Your task to perform on an android device: Go to CNN.com Image 0: 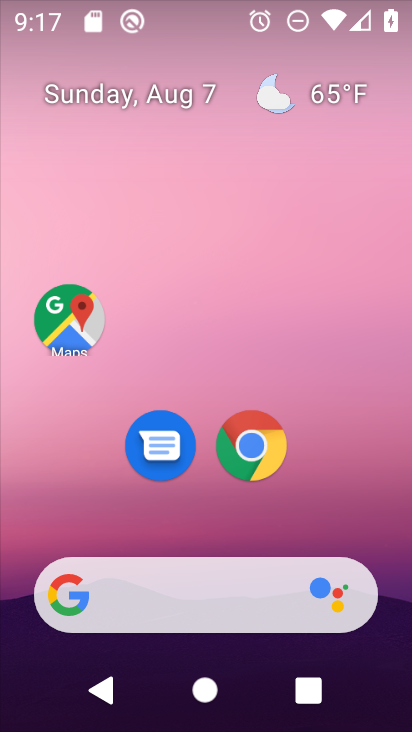
Step 0: press home button
Your task to perform on an android device: Go to CNN.com Image 1: 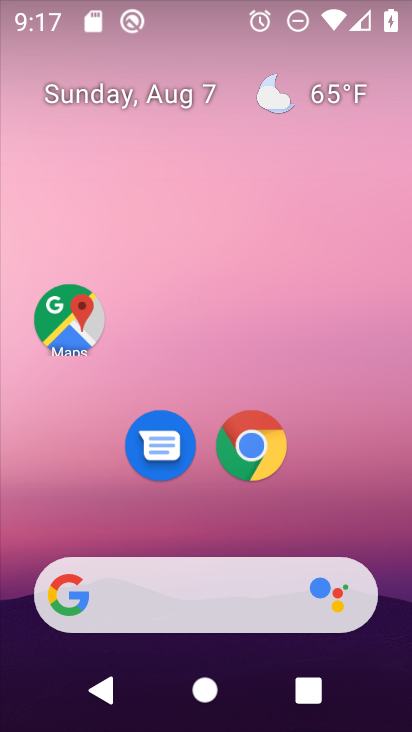
Step 1: click (253, 436)
Your task to perform on an android device: Go to CNN.com Image 2: 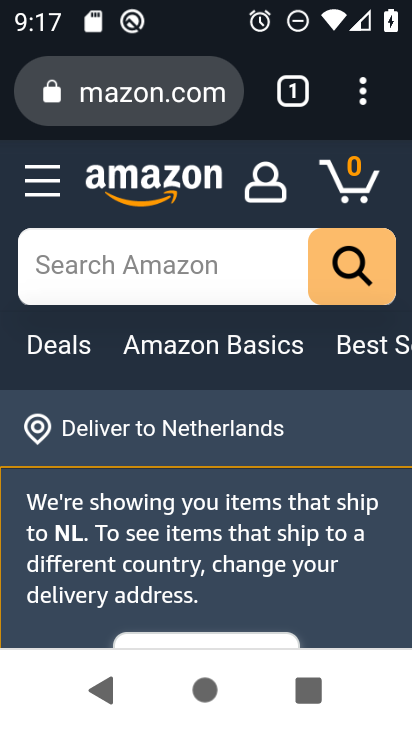
Step 2: click (290, 89)
Your task to perform on an android device: Go to CNN.com Image 3: 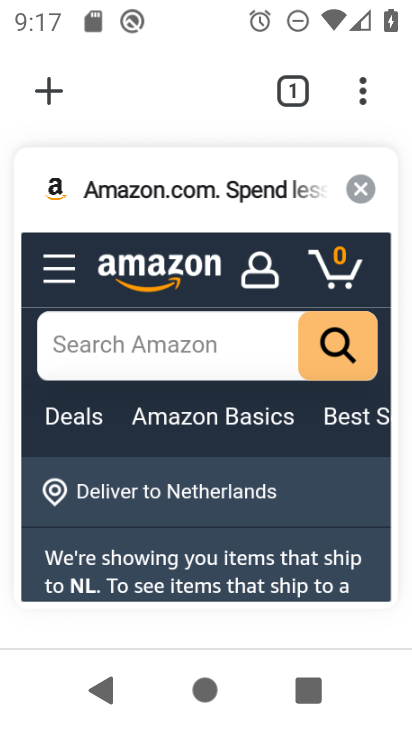
Step 3: click (57, 88)
Your task to perform on an android device: Go to CNN.com Image 4: 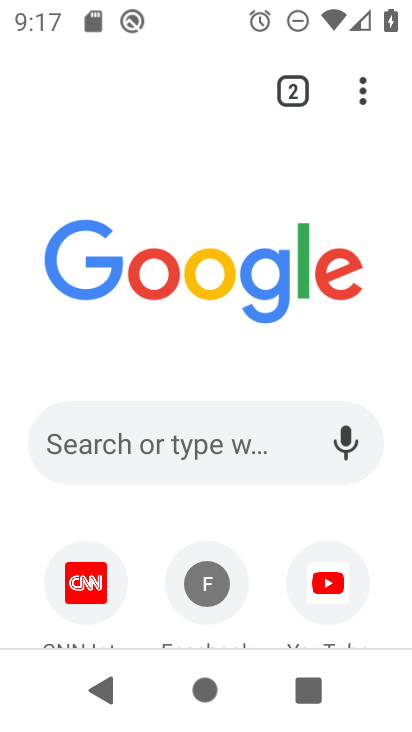
Step 4: click (81, 582)
Your task to perform on an android device: Go to CNN.com Image 5: 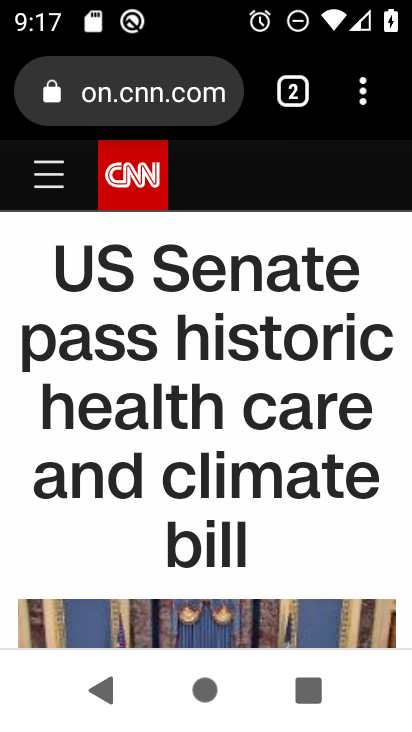
Step 5: task complete